Your task to perform on an android device: toggle improve location accuracy Image 0: 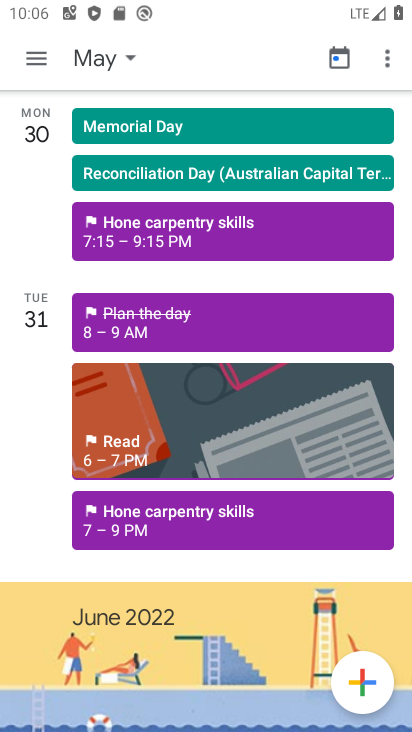
Step 0: press home button
Your task to perform on an android device: toggle improve location accuracy Image 1: 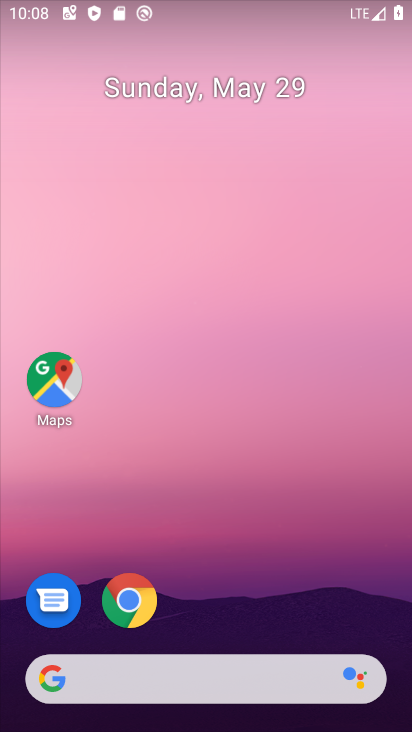
Step 1: drag from (359, 612) to (176, 171)
Your task to perform on an android device: toggle improve location accuracy Image 2: 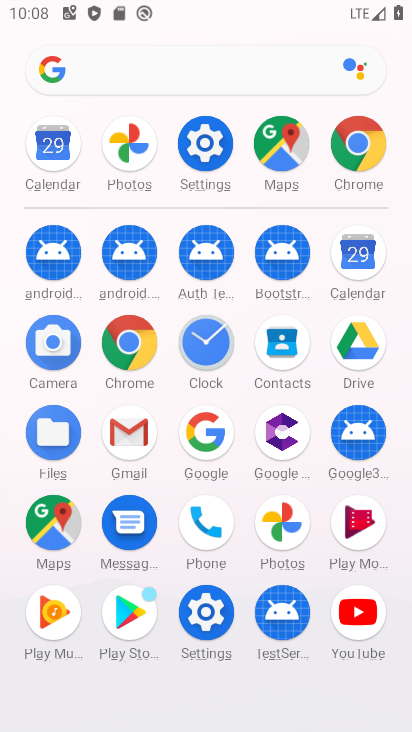
Step 2: click (209, 646)
Your task to perform on an android device: toggle improve location accuracy Image 3: 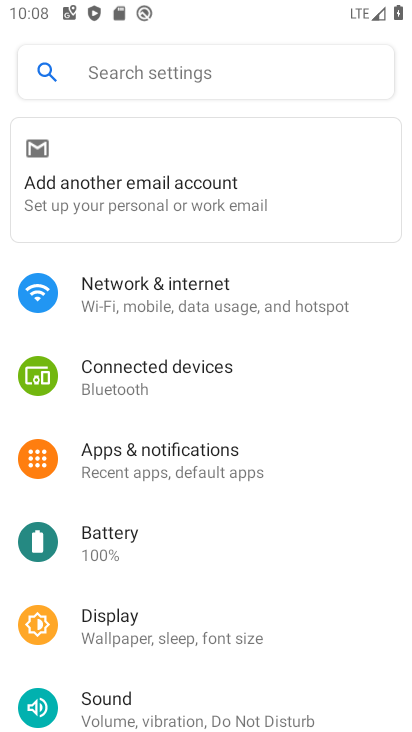
Step 3: drag from (203, 647) to (283, 223)
Your task to perform on an android device: toggle improve location accuracy Image 4: 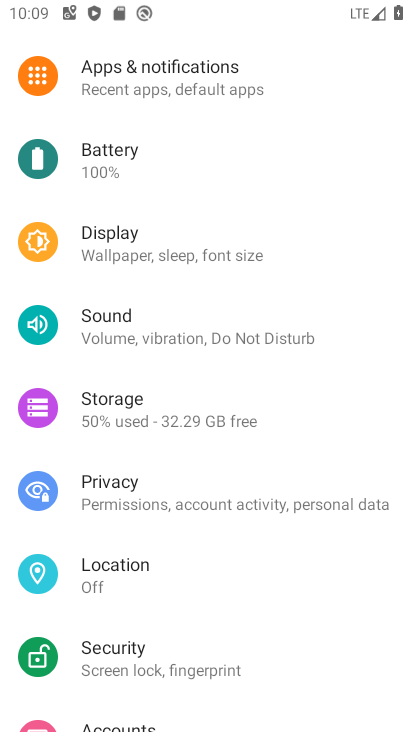
Step 4: click (90, 582)
Your task to perform on an android device: toggle improve location accuracy Image 5: 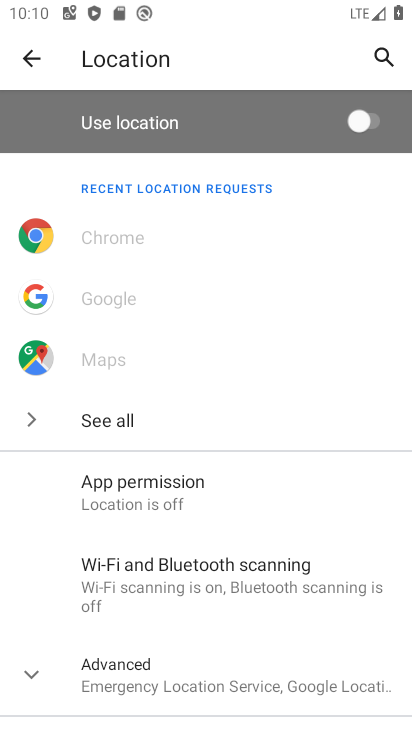
Step 5: click (103, 648)
Your task to perform on an android device: toggle improve location accuracy Image 6: 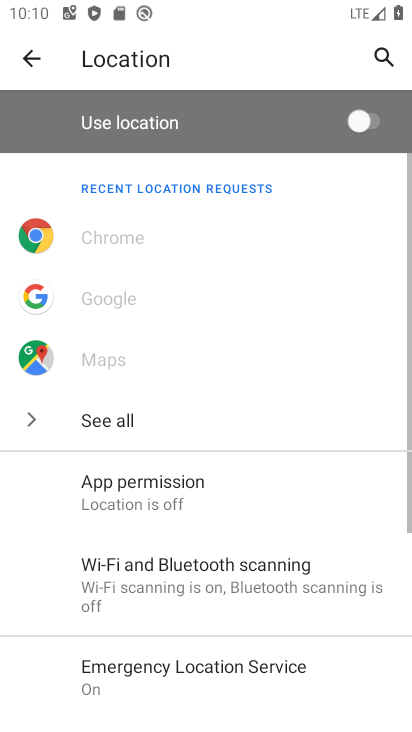
Step 6: drag from (190, 603) to (402, 111)
Your task to perform on an android device: toggle improve location accuracy Image 7: 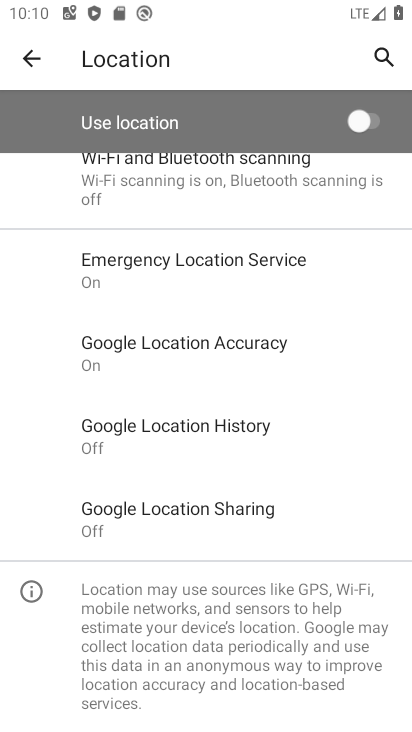
Step 7: click (142, 354)
Your task to perform on an android device: toggle improve location accuracy Image 8: 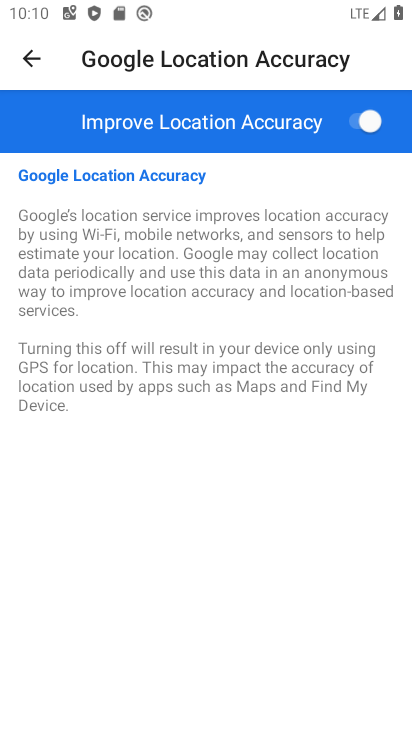
Step 8: task complete